Your task to perform on an android device: Open the Play Movies app and select the watchlist tab. Image 0: 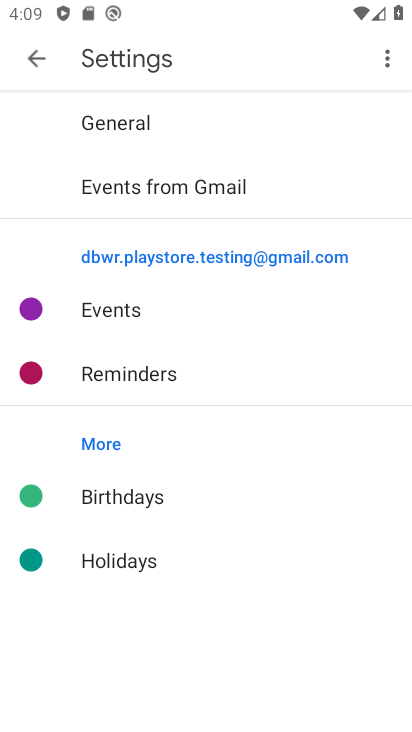
Step 0: press home button
Your task to perform on an android device: Open the Play Movies app and select the watchlist tab. Image 1: 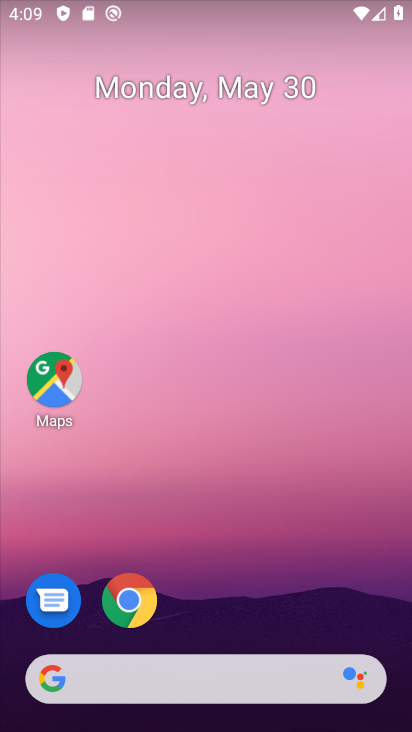
Step 1: drag from (242, 639) to (159, 181)
Your task to perform on an android device: Open the Play Movies app and select the watchlist tab. Image 2: 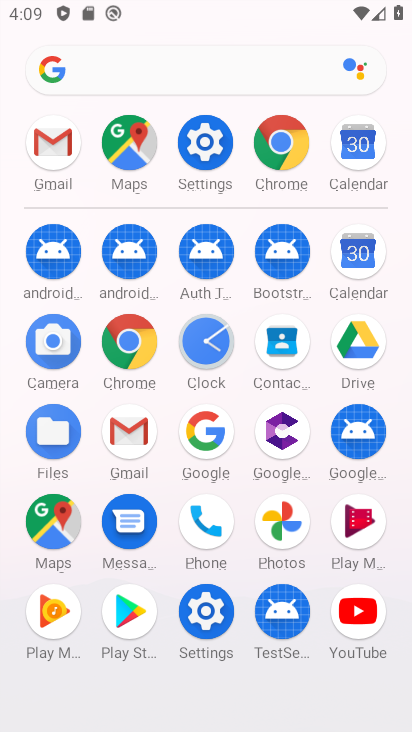
Step 2: click (366, 505)
Your task to perform on an android device: Open the Play Movies app and select the watchlist tab. Image 3: 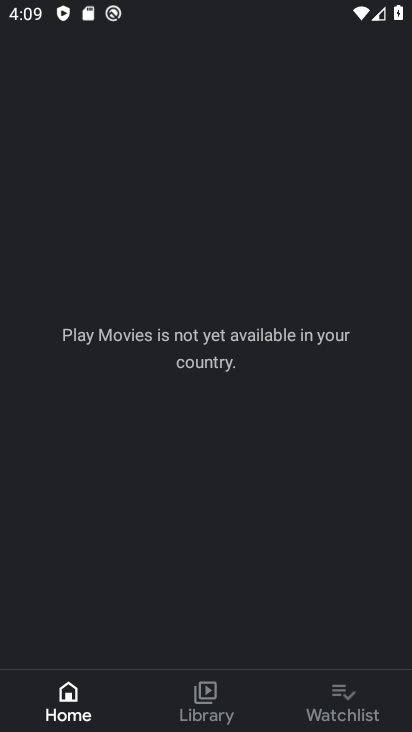
Step 3: click (350, 688)
Your task to perform on an android device: Open the Play Movies app and select the watchlist tab. Image 4: 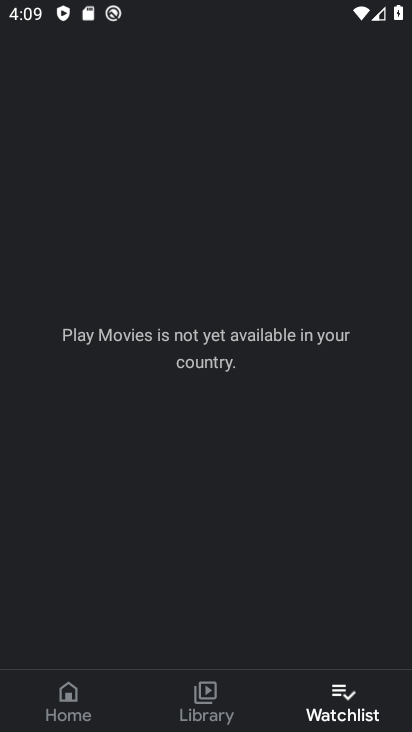
Step 4: task complete